Your task to perform on an android device: Open Google Chrome and open the bookmarks view Image 0: 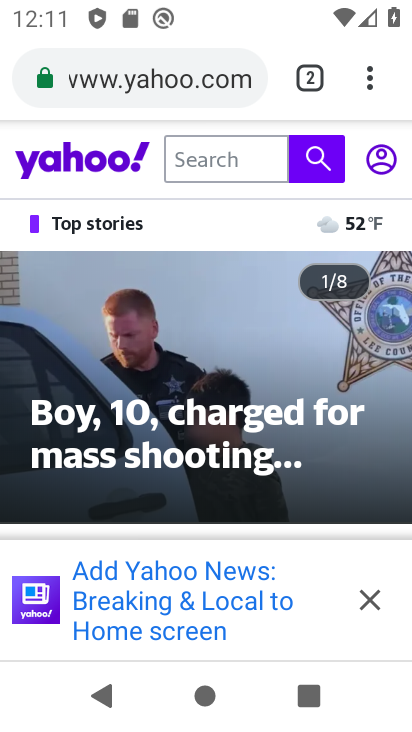
Step 0: press home button
Your task to perform on an android device: Open Google Chrome and open the bookmarks view Image 1: 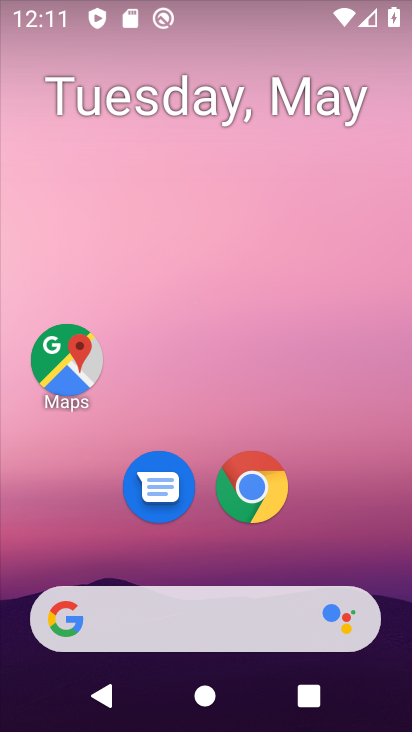
Step 1: click (272, 487)
Your task to perform on an android device: Open Google Chrome and open the bookmarks view Image 2: 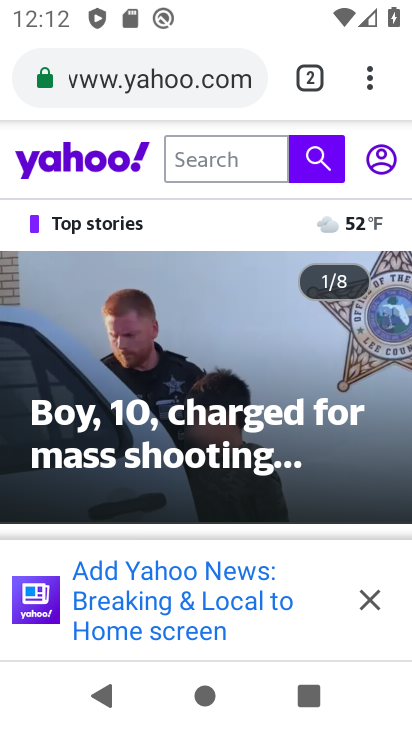
Step 2: click (370, 67)
Your task to perform on an android device: Open Google Chrome and open the bookmarks view Image 3: 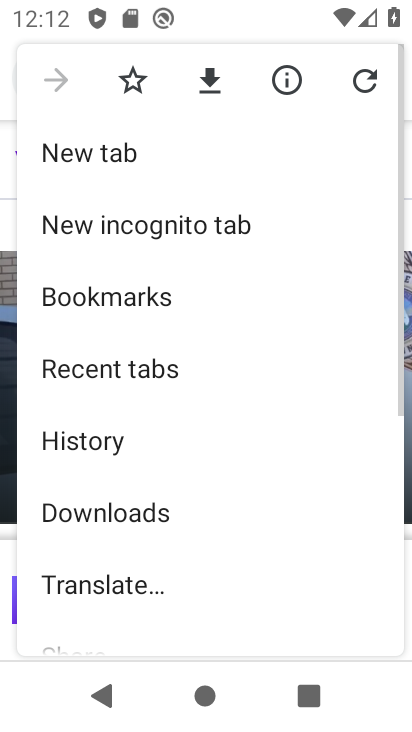
Step 3: click (118, 297)
Your task to perform on an android device: Open Google Chrome and open the bookmarks view Image 4: 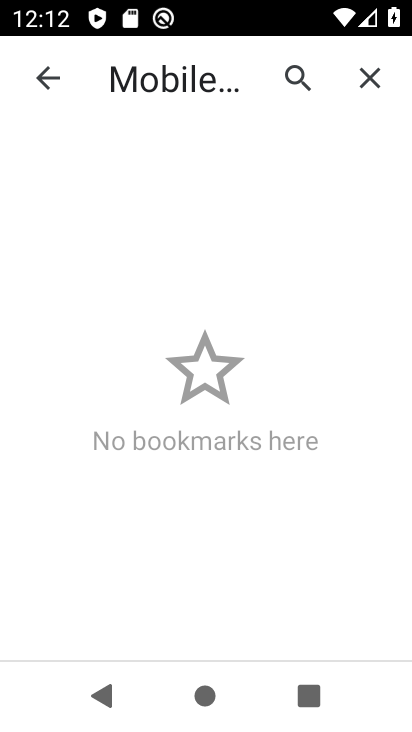
Step 4: task complete